Your task to perform on an android device: turn off sleep mode Image 0: 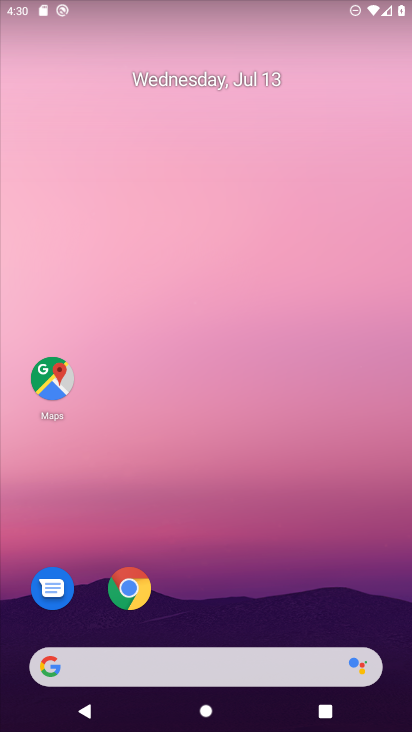
Step 0: drag from (254, 629) to (184, 181)
Your task to perform on an android device: turn off sleep mode Image 1: 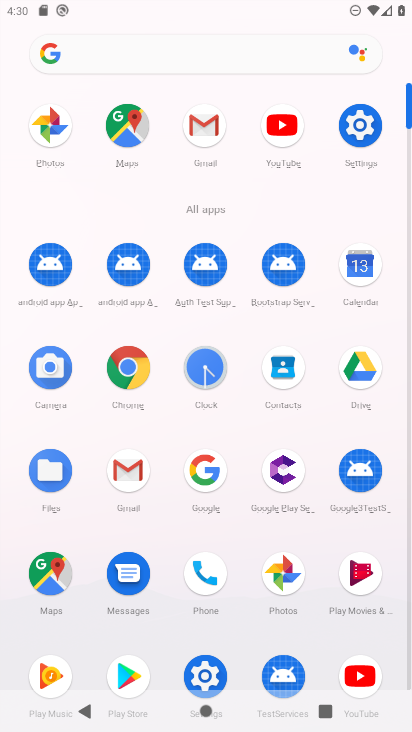
Step 1: click (348, 132)
Your task to perform on an android device: turn off sleep mode Image 2: 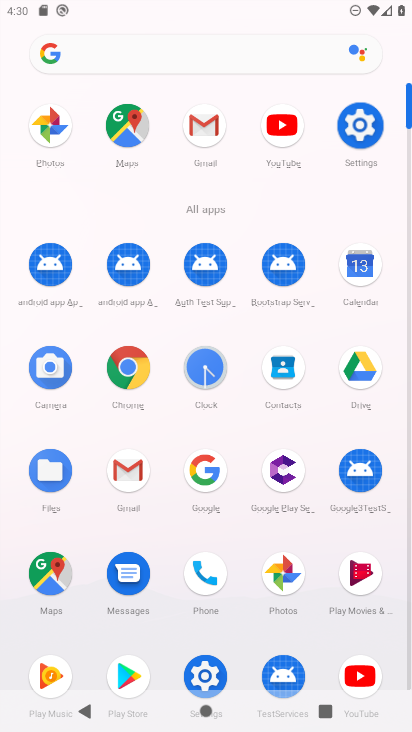
Step 2: click (358, 121)
Your task to perform on an android device: turn off sleep mode Image 3: 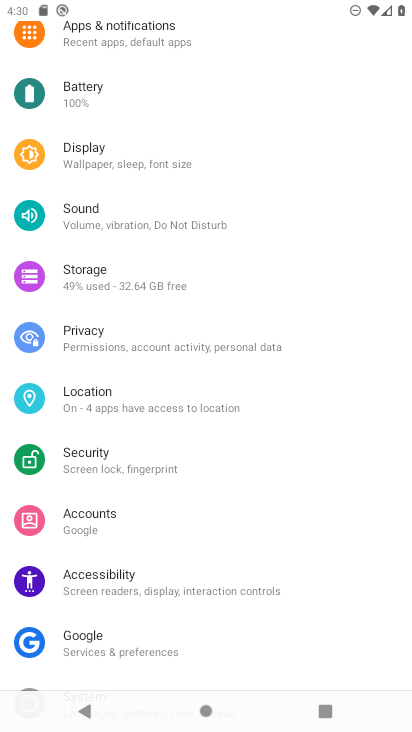
Step 3: click (97, 146)
Your task to perform on an android device: turn off sleep mode Image 4: 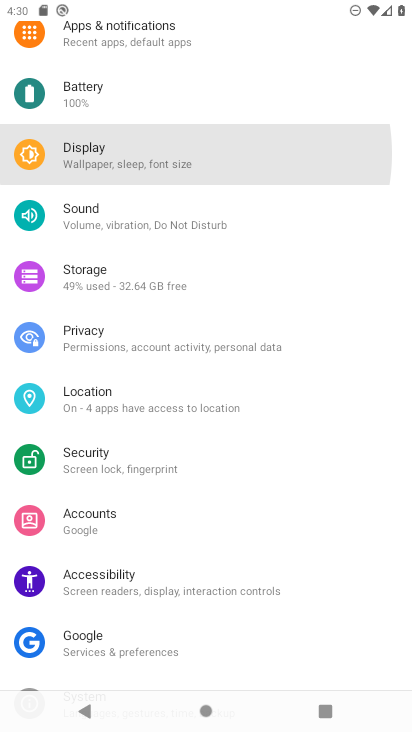
Step 4: click (97, 146)
Your task to perform on an android device: turn off sleep mode Image 5: 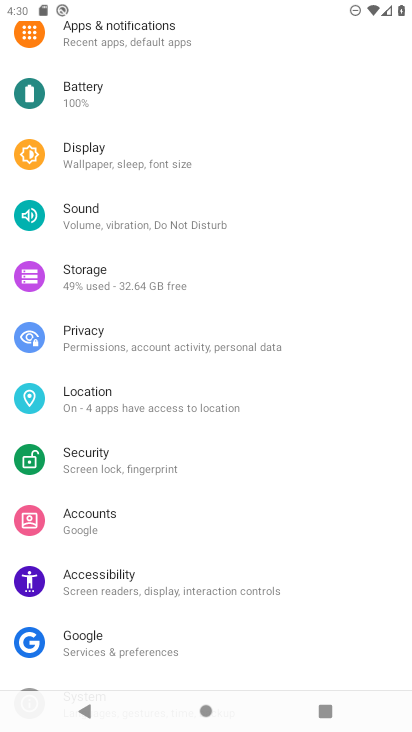
Step 5: click (97, 146)
Your task to perform on an android device: turn off sleep mode Image 6: 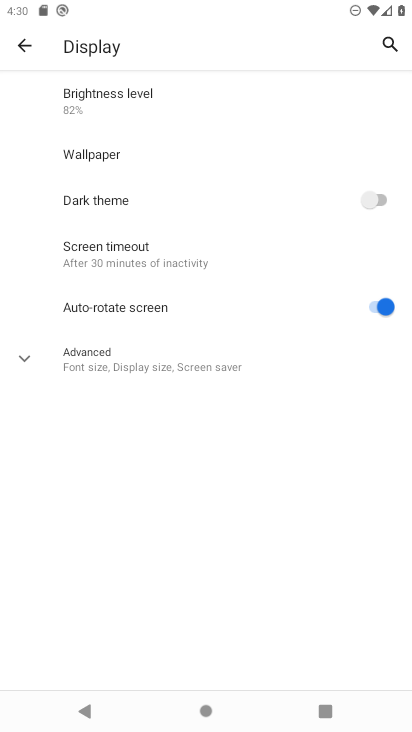
Step 6: click (115, 257)
Your task to perform on an android device: turn off sleep mode Image 7: 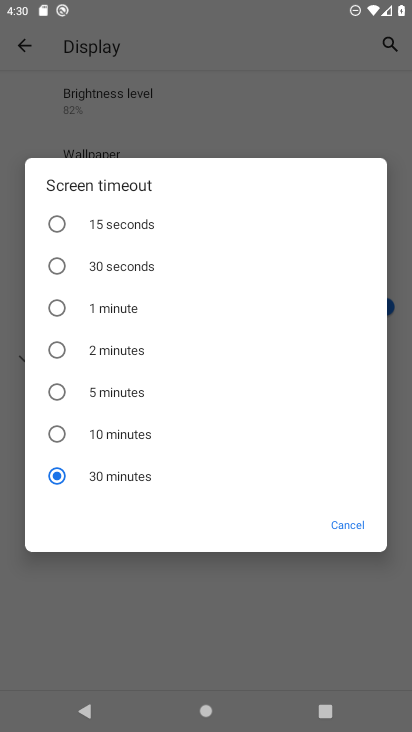
Step 7: click (356, 521)
Your task to perform on an android device: turn off sleep mode Image 8: 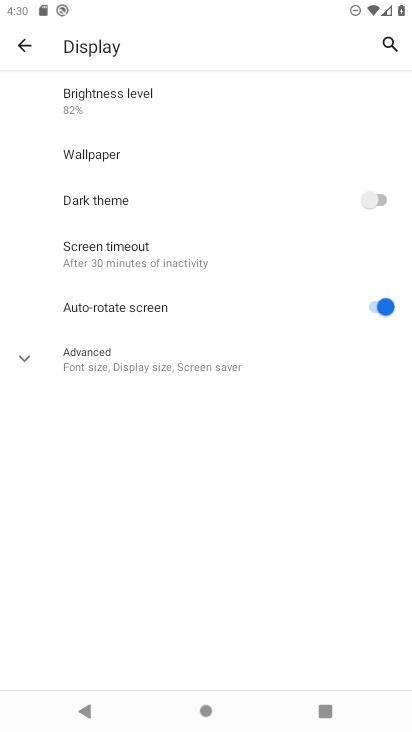
Step 8: task complete